Your task to perform on an android device: move a message to another label in the gmail app Image 0: 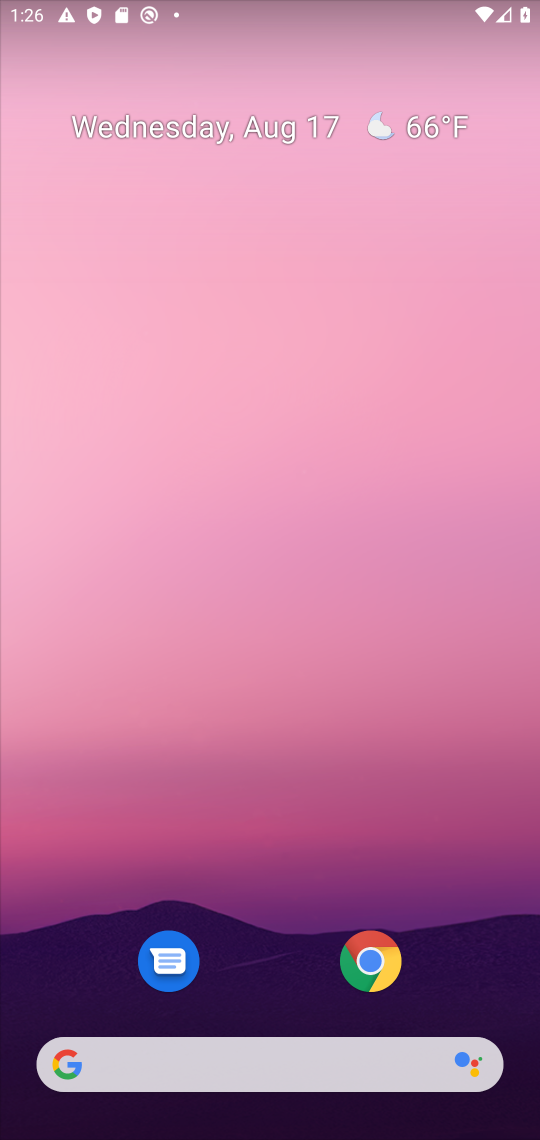
Step 0: drag from (290, 1000) to (245, 334)
Your task to perform on an android device: move a message to another label in the gmail app Image 1: 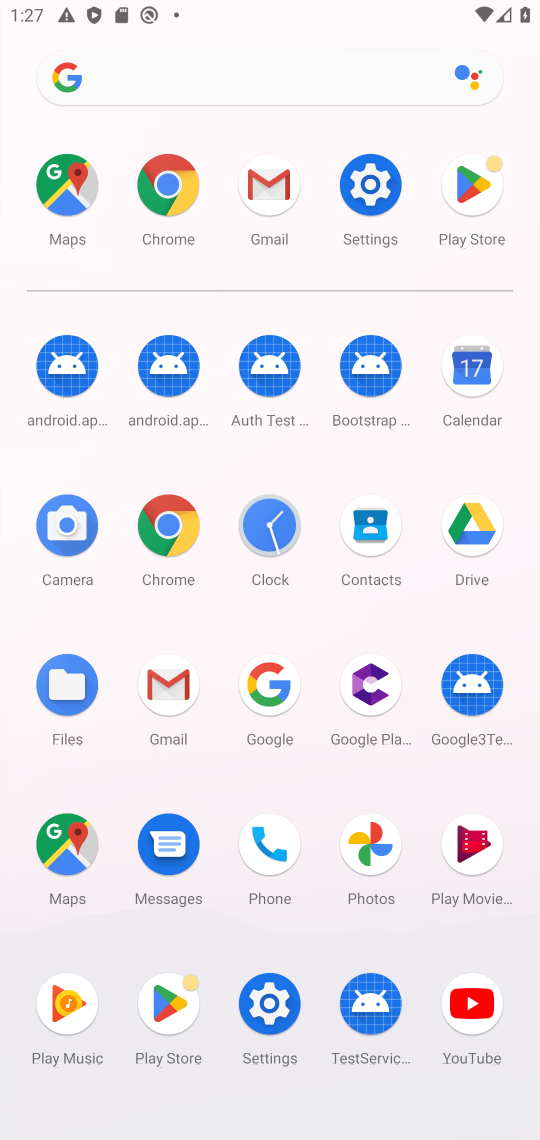
Step 1: click (189, 690)
Your task to perform on an android device: move a message to another label in the gmail app Image 2: 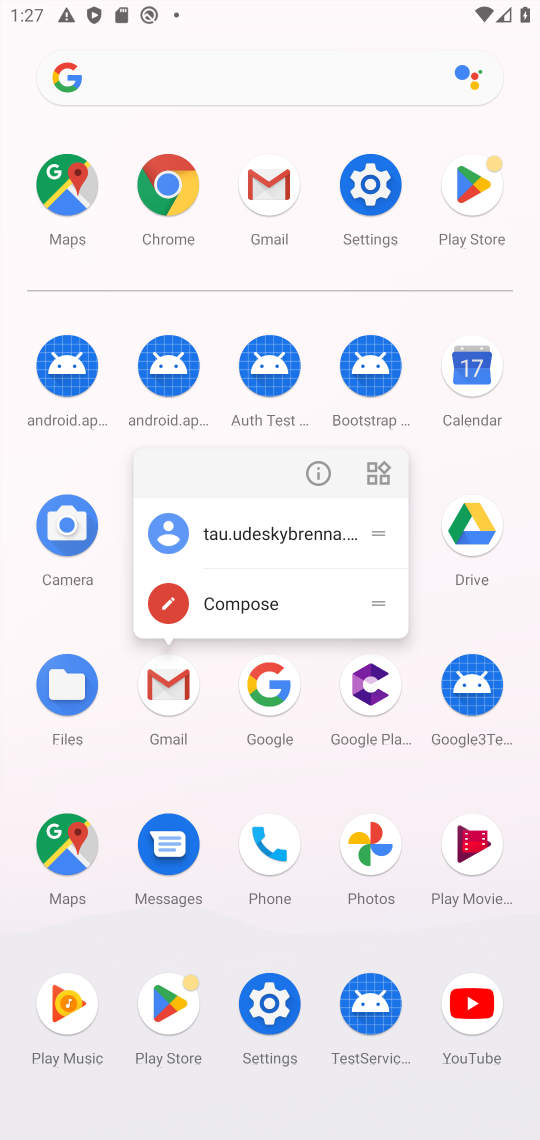
Step 2: click (189, 690)
Your task to perform on an android device: move a message to another label in the gmail app Image 3: 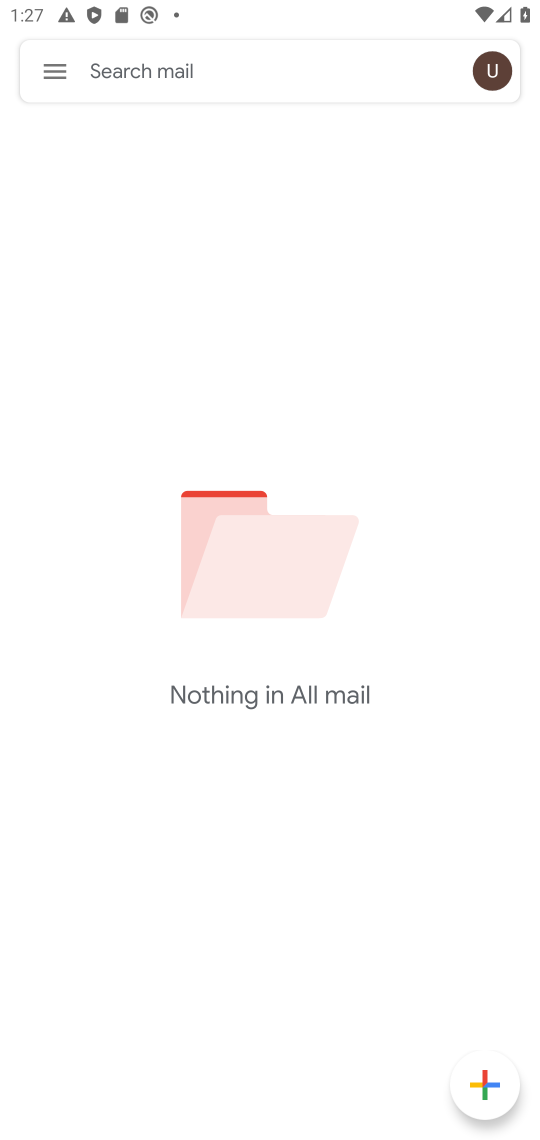
Step 3: task complete